Your task to perform on an android device: check google app version Image 0: 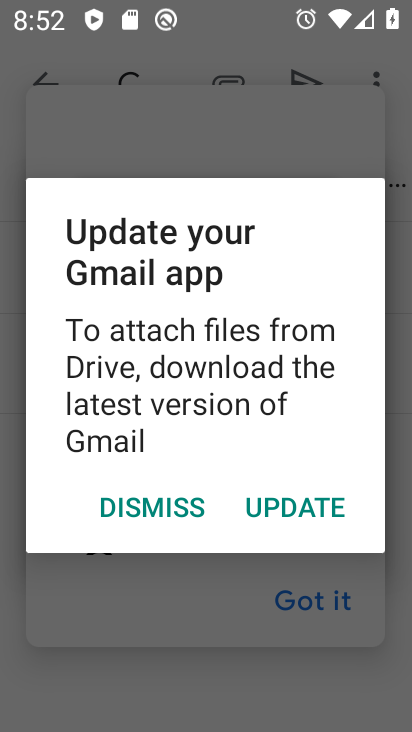
Step 0: click (141, 508)
Your task to perform on an android device: check google app version Image 1: 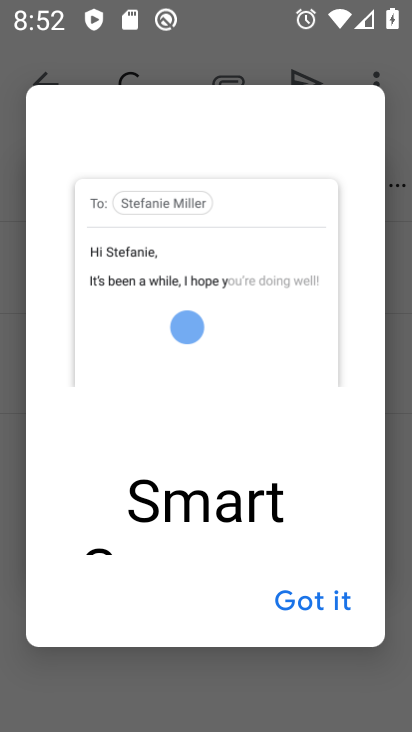
Step 1: press back button
Your task to perform on an android device: check google app version Image 2: 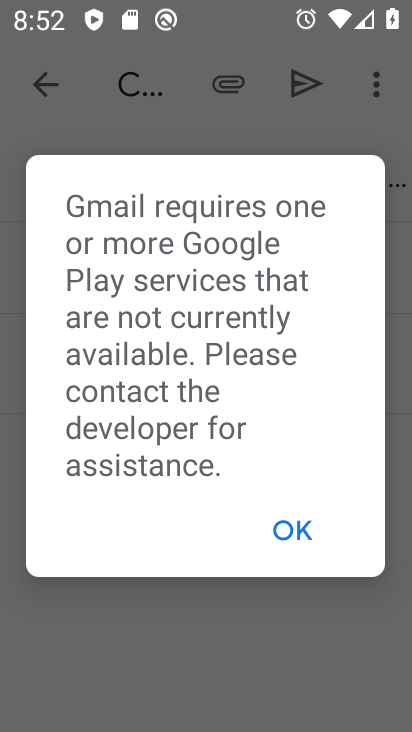
Step 2: click (282, 531)
Your task to perform on an android device: check google app version Image 3: 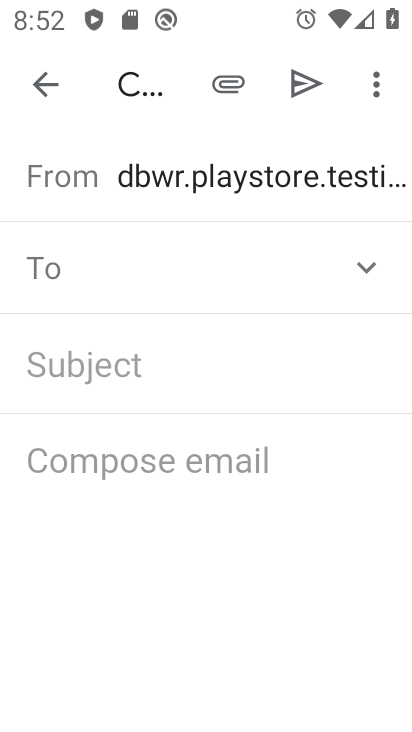
Step 3: click (38, 86)
Your task to perform on an android device: check google app version Image 4: 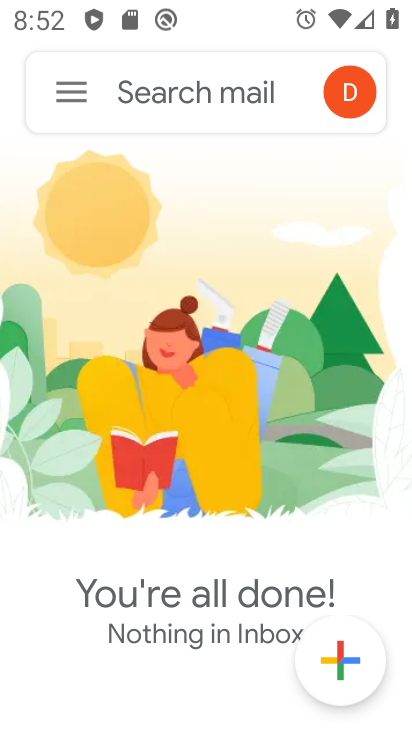
Step 4: press home button
Your task to perform on an android device: check google app version Image 5: 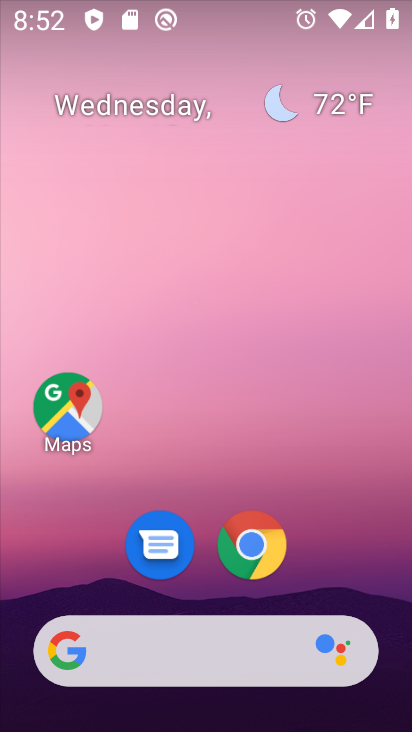
Step 5: drag from (324, 633) to (132, 11)
Your task to perform on an android device: check google app version Image 6: 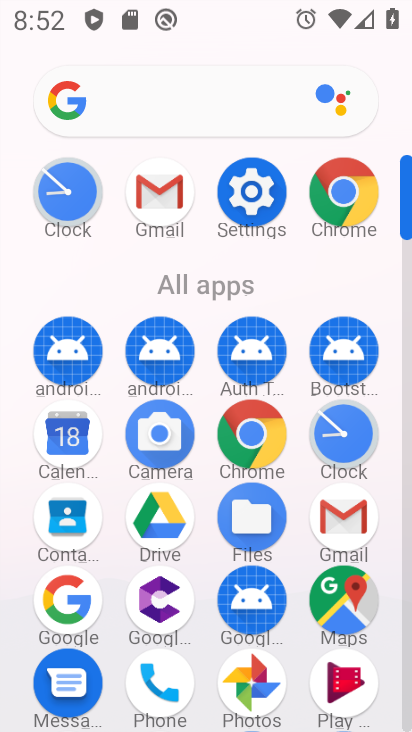
Step 6: click (68, 589)
Your task to perform on an android device: check google app version Image 7: 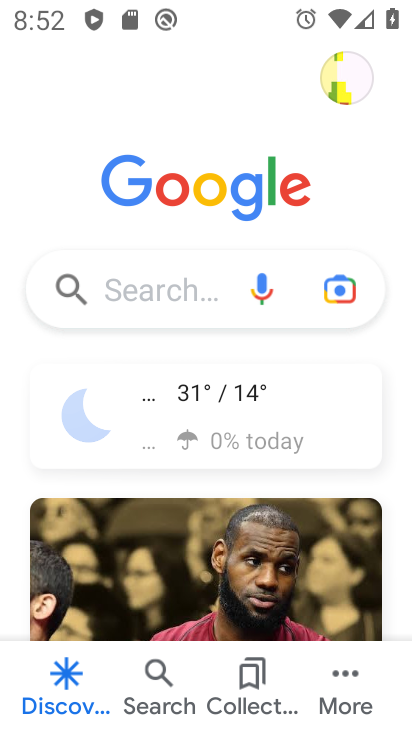
Step 7: click (367, 690)
Your task to perform on an android device: check google app version Image 8: 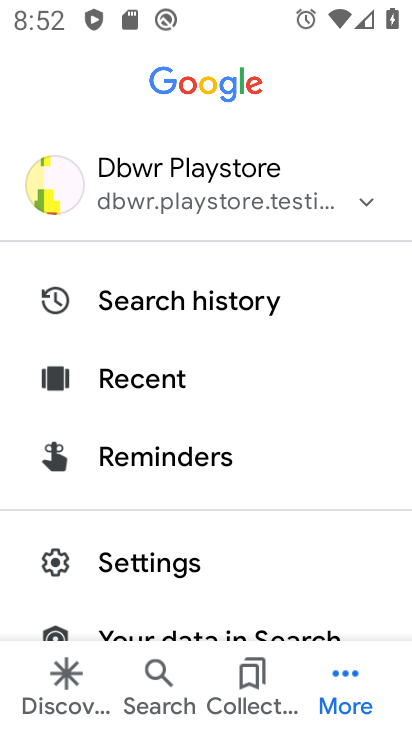
Step 8: drag from (213, 492) to (118, 143)
Your task to perform on an android device: check google app version Image 9: 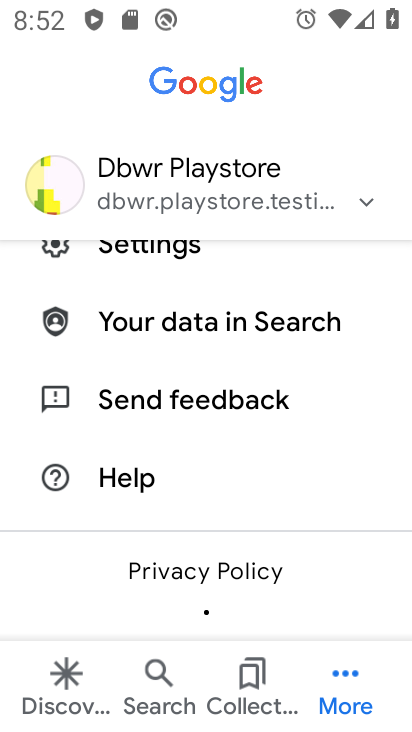
Step 9: drag from (178, 422) to (137, 188)
Your task to perform on an android device: check google app version Image 10: 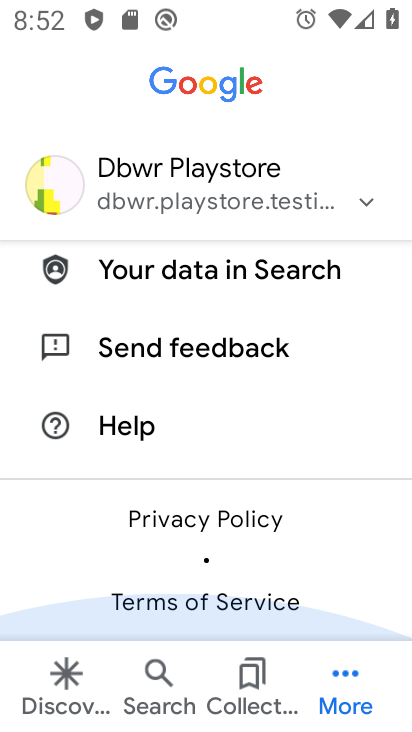
Step 10: drag from (221, 510) to (218, 128)
Your task to perform on an android device: check google app version Image 11: 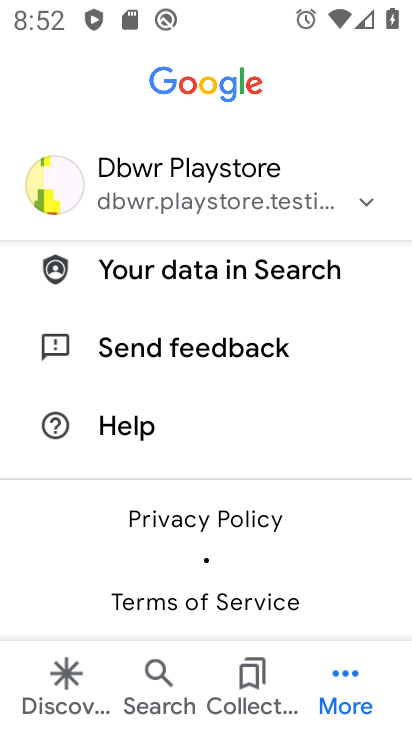
Step 11: drag from (224, 539) to (216, 109)
Your task to perform on an android device: check google app version Image 12: 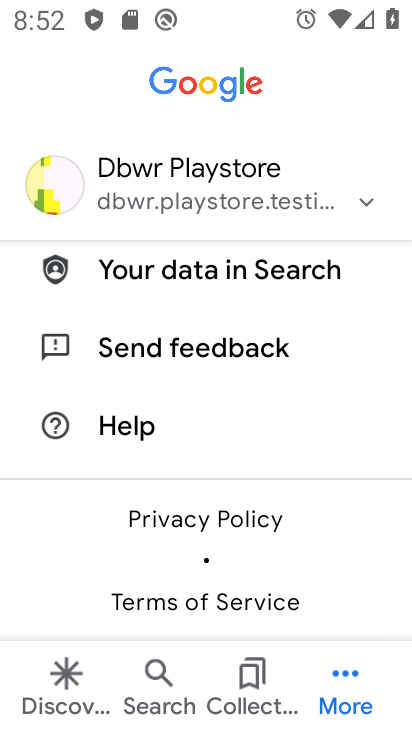
Step 12: drag from (172, 315) to (221, 591)
Your task to perform on an android device: check google app version Image 13: 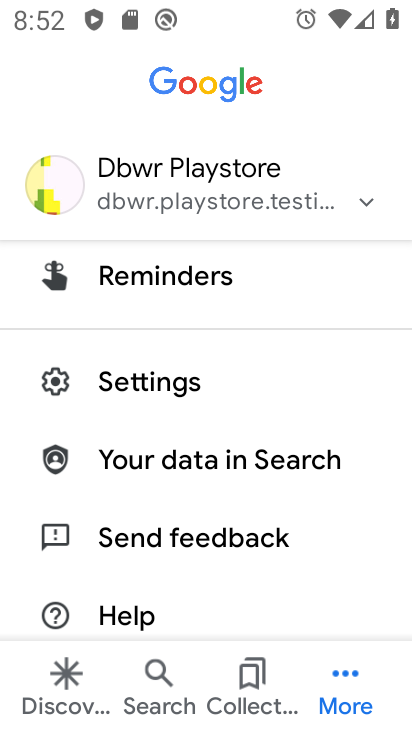
Step 13: drag from (191, 371) to (218, 701)
Your task to perform on an android device: check google app version Image 14: 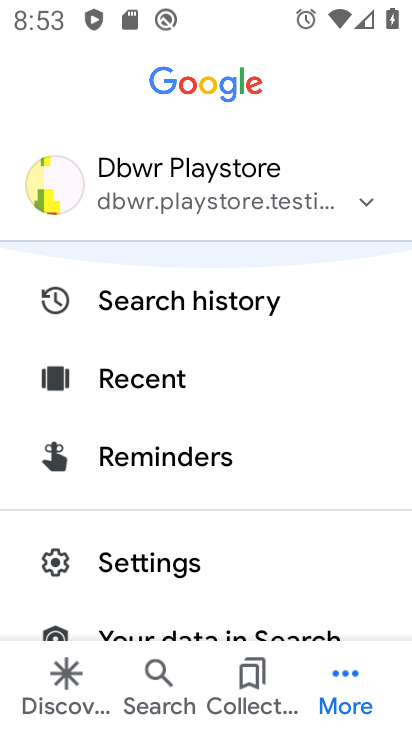
Step 14: drag from (155, 359) to (226, 625)
Your task to perform on an android device: check google app version Image 15: 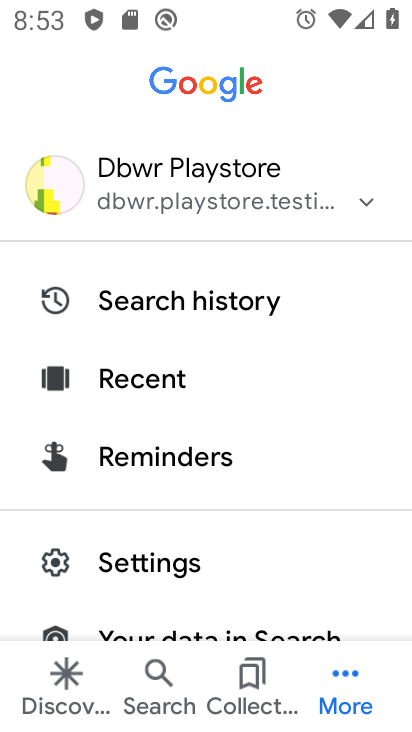
Step 15: drag from (223, 516) to (191, 148)
Your task to perform on an android device: check google app version Image 16: 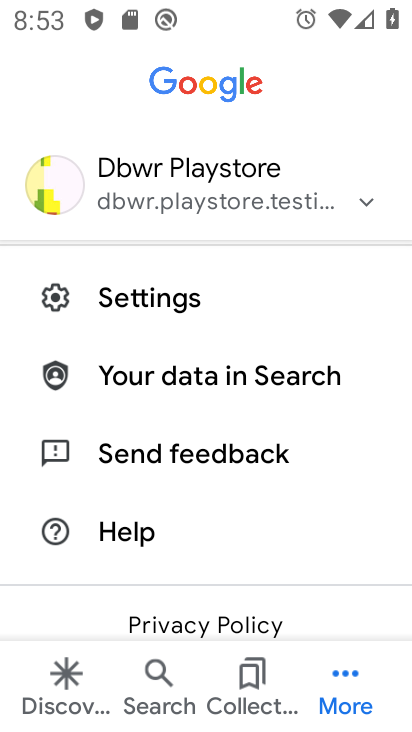
Step 16: drag from (232, 574) to (192, 213)
Your task to perform on an android device: check google app version Image 17: 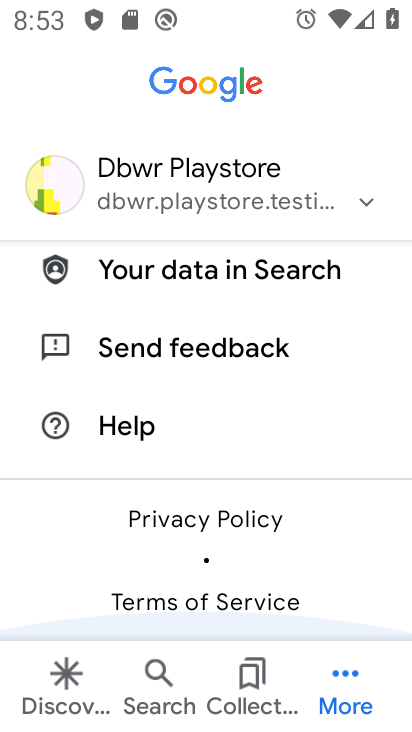
Step 17: drag from (217, 476) to (193, 178)
Your task to perform on an android device: check google app version Image 18: 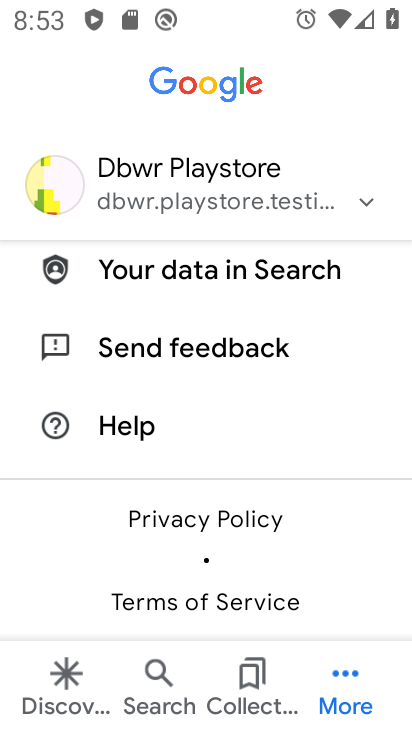
Step 18: drag from (123, 326) to (179, 568)
Your task to perform on an android device: check google app version Image 19: 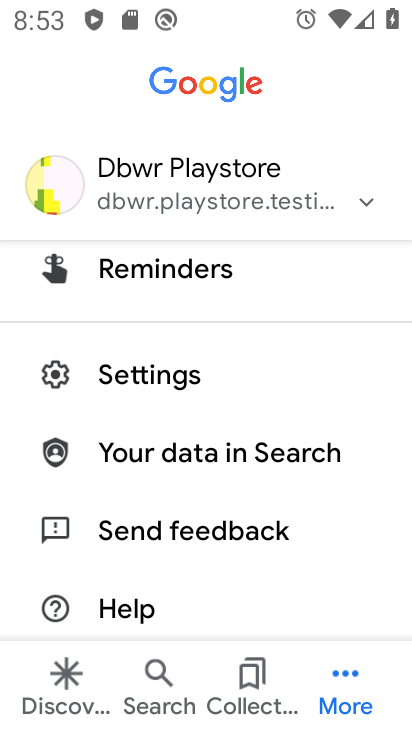
Step 19: drag from (175, 296) to (241, 549)
Your task to perform on an android device: check google app version Image 20: 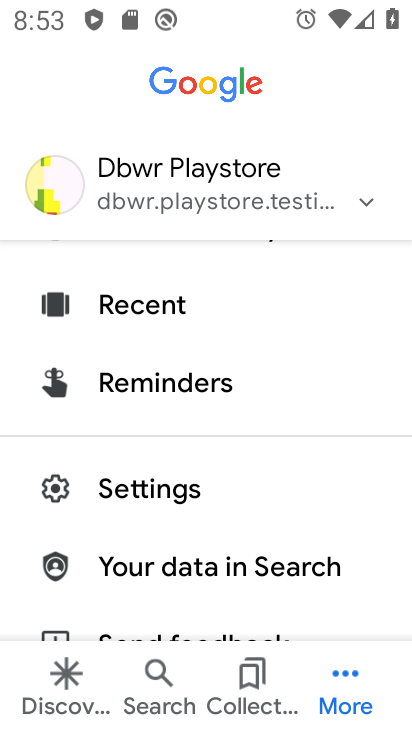
Step 20: click (140, 476)
Your task to perform on an android device: check google app version Image 21: 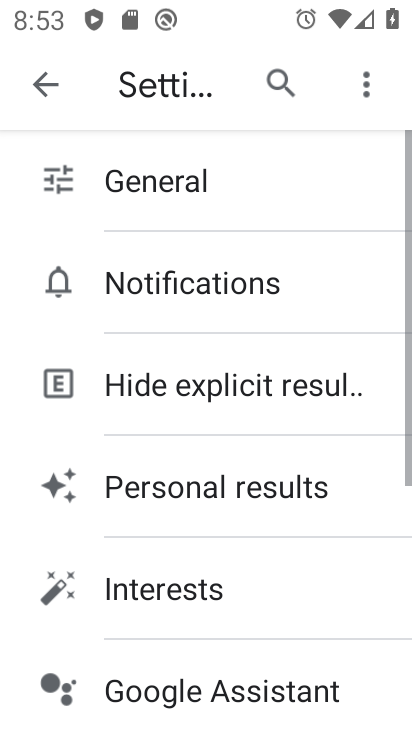
Step 21: drag from (199, 522) to (163, 206)
Your task to perform on an android device: check google app version Image 22: 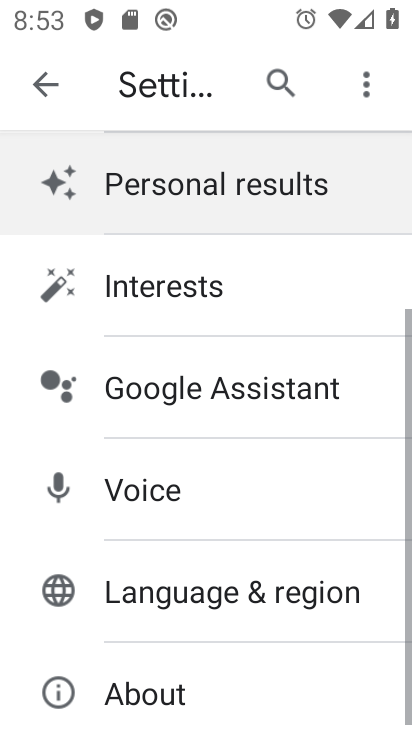
Step 22: drag from (179, 489) to (175, 173)
Your task to perform on an android device: check google app version Image 23: 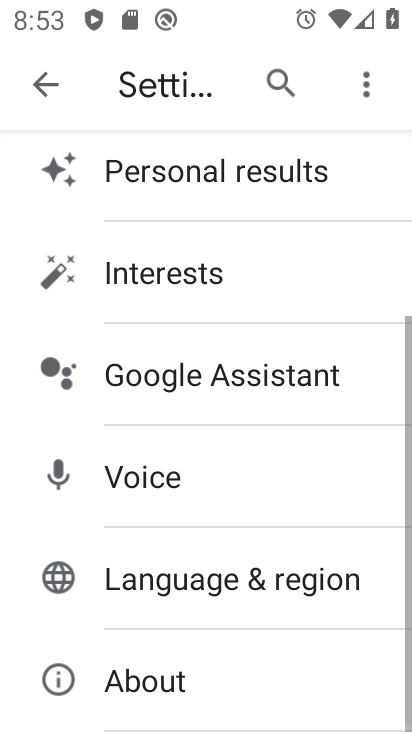
Step 23: drag from (179, 447) to (140, 151)
Your task to perform on an android device: check google app version Image 24: 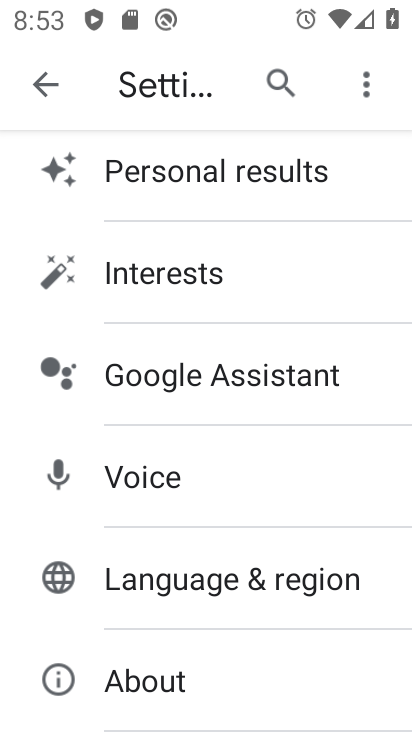
Step 24: click (144, 687)
Your task to perform on an android device: check google app version Image 25: 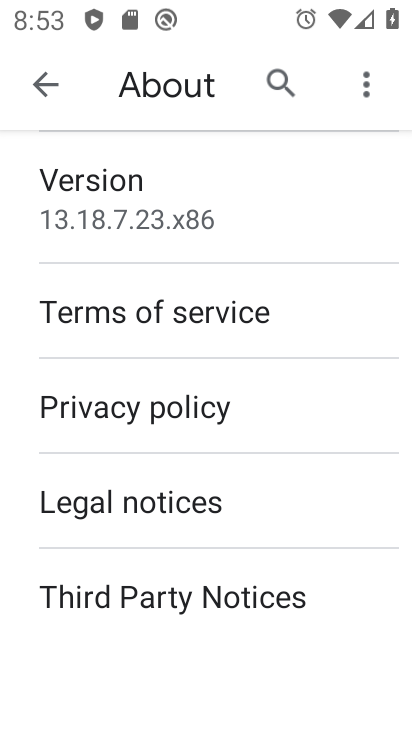
Step 25: task complete